Your task to perform on an android device: search for starred emails in the gmail app Image 0: 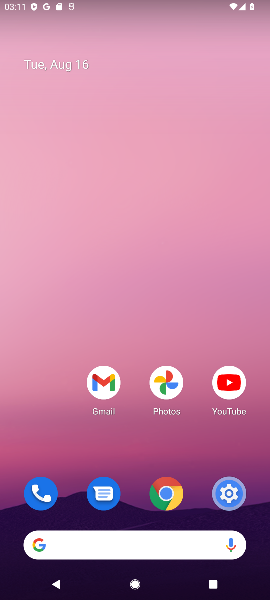
Step 0: drag from (68, 444) to (73, 125)
Your task to perform on an android device: search for starred emails in the gmail app Image 1: 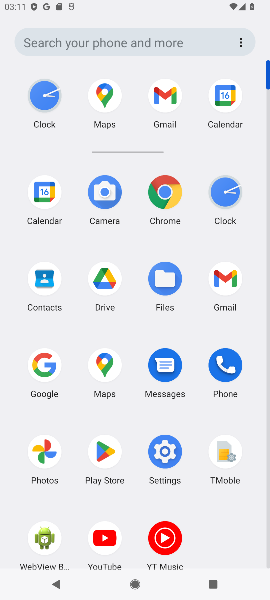
Step 1: click (221, 274)
Your task to perform on an android device: search for starred emails in the gmail app Image 2: 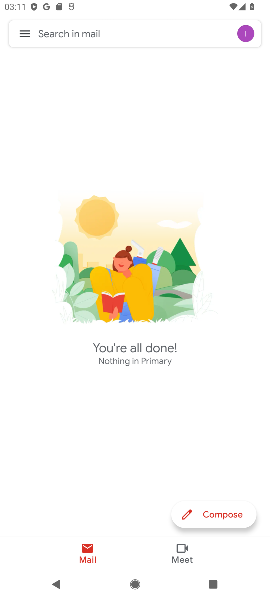
Step 2: click (27, 32)
Your task to perform on an android device: search for starred emails in the gmail app Image 3: 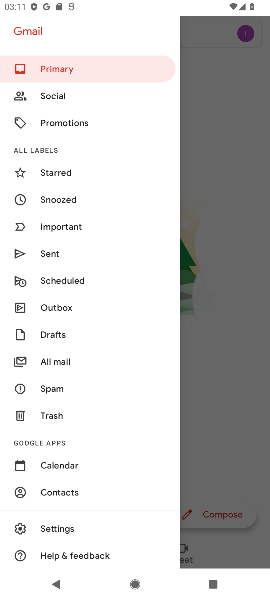
Step 3: click (73, 170)
Your task to perform on an android device: search for starred emails in the gmail app Image 4: 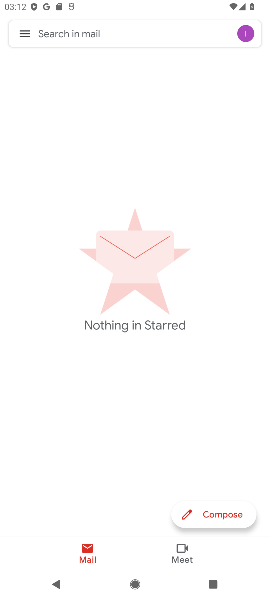
Step 4: task complete